Your task to perform on an android device: Open Yahoo.com Image 0: 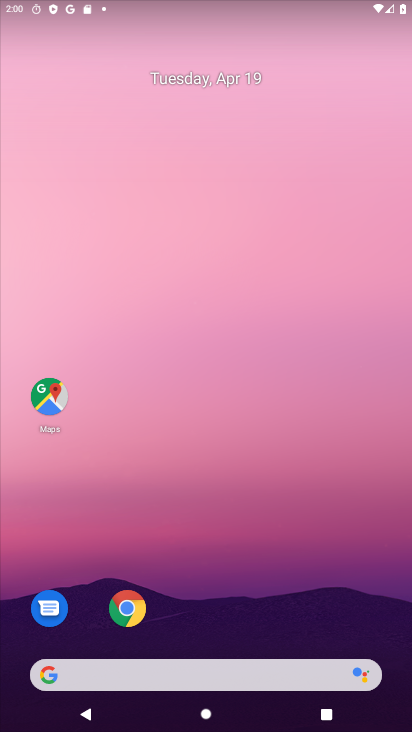
Step 0: click (127, 594)
Your task to perform on an android device: Open Yahoo.com Image 1: 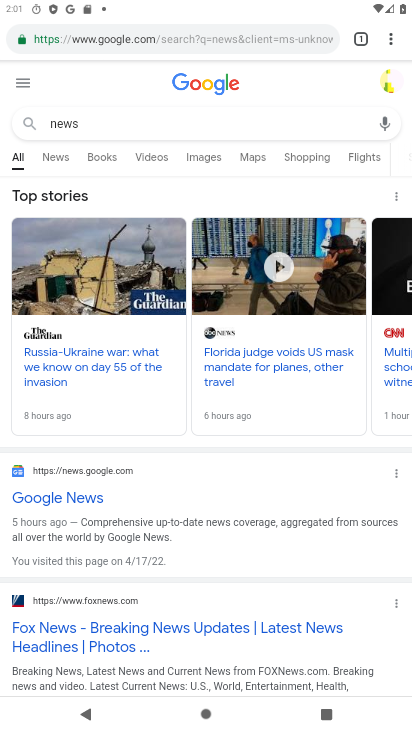
Step 1: press back button
Your task to perform on an android device: Open Yahoo.com Image 2: 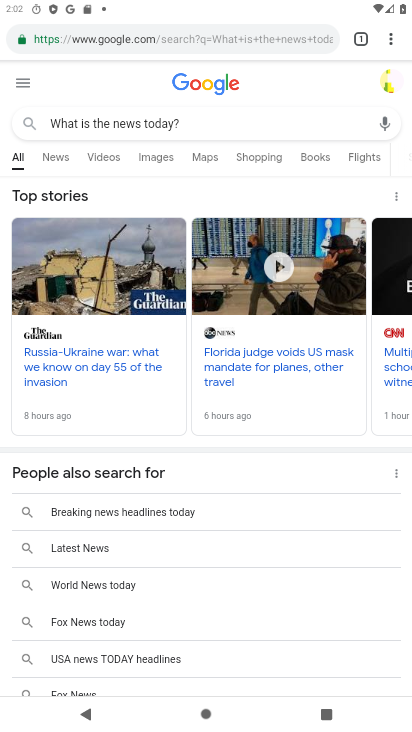
Step 2: press back button
Your task to perform on an android device: Open Yahoo.com Image 3: 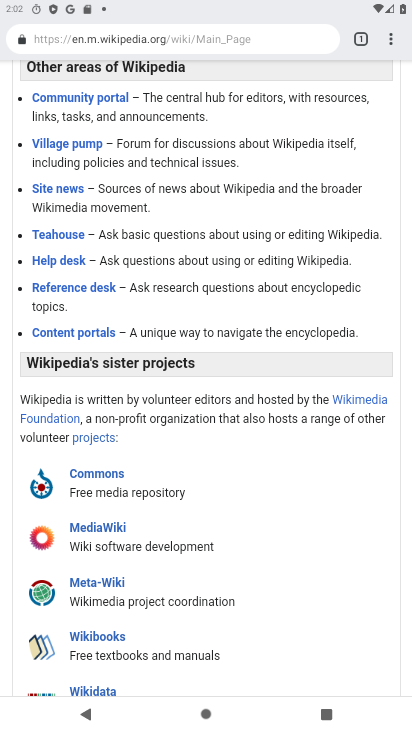
Step 3: press back button
Your task to perform on an android device: Open Yahoo.com Image 4: 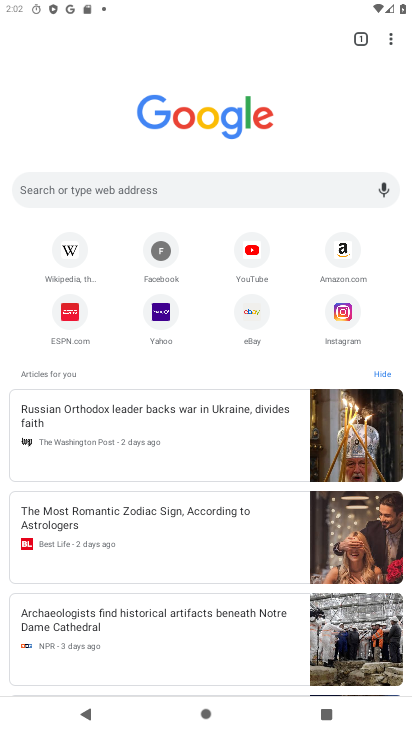
Step 4: click (173, 308)
Your task to perform on an android device: Open Yahoo.com Image 5: 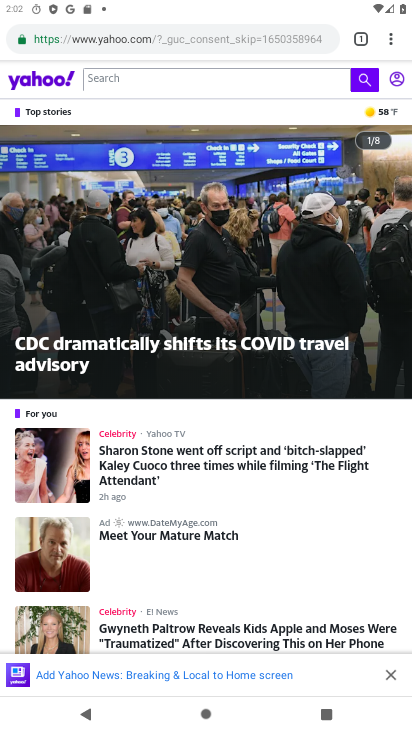
Step 5: task complete